Your task to perform on an android device: Go to sound settings Image 0: 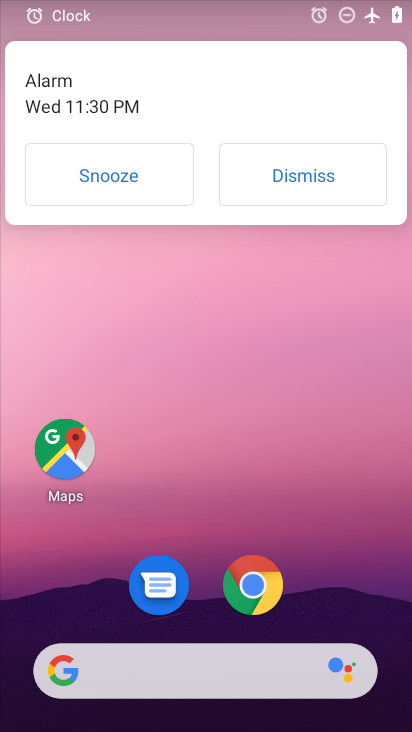
Step 0: click (286, 176)
Your task to perform on an android device: Go to sound settings Image 1: 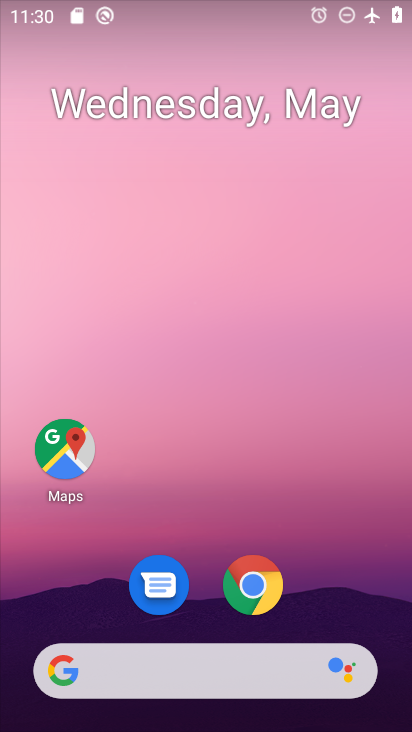
Step 1: drag from (343, 526) to (243, 39)
Your task to perform on an android device: Go to sound settings Image 2: 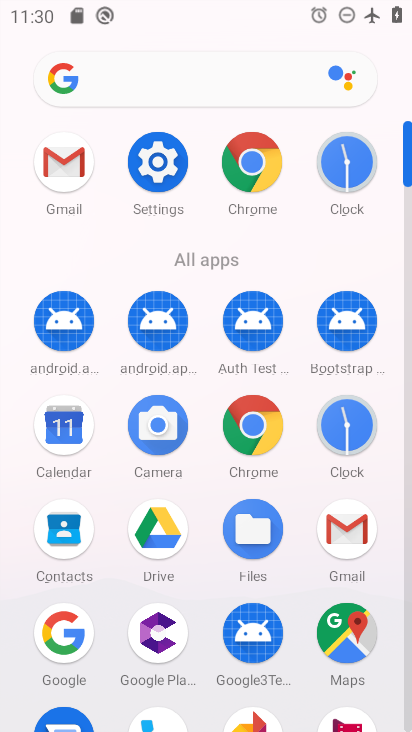
Step 2: click (169, 150)
Your task to perform on an android device: Go to sound settings Image 3: 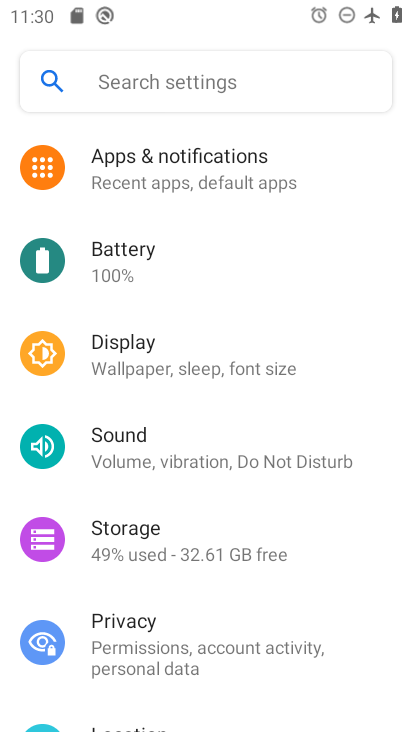
Step 3: click (190, 445)
Your task to perform on an android device: Go to sound settings Image 4: 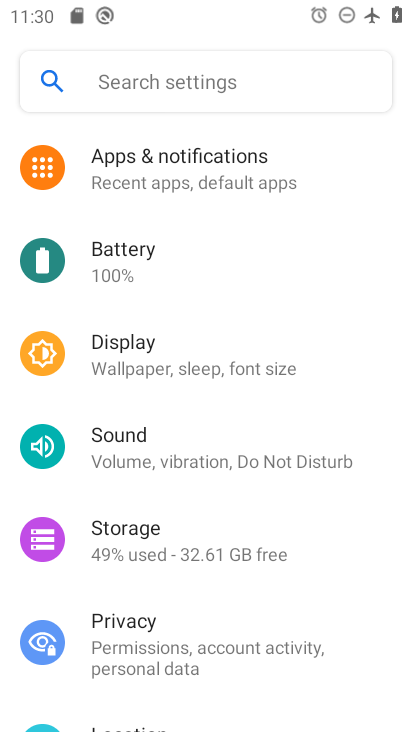
Step 4: click (200, 445)
Your task to perform on an android device: Go to sound settings Image 5: 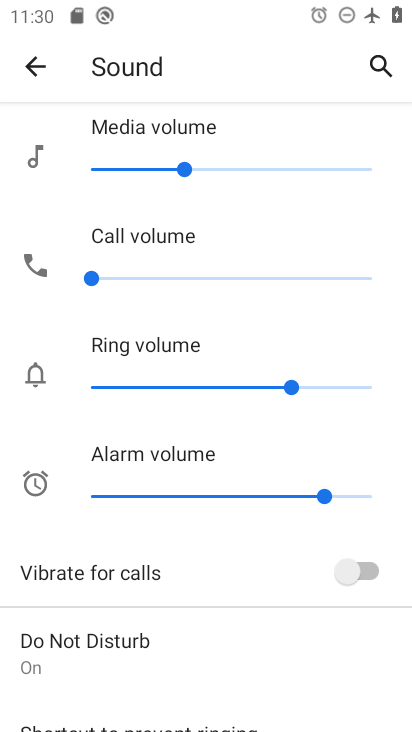
Step 5: task complete